Your task to perform on an android device: Go to Amazon Image 0: 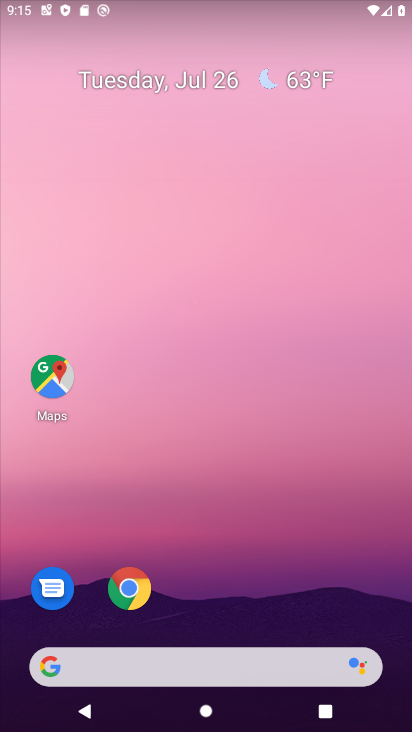
Step 0: click (123, 599)
Your task to perform on an android device: Go to Amazon Image 1: 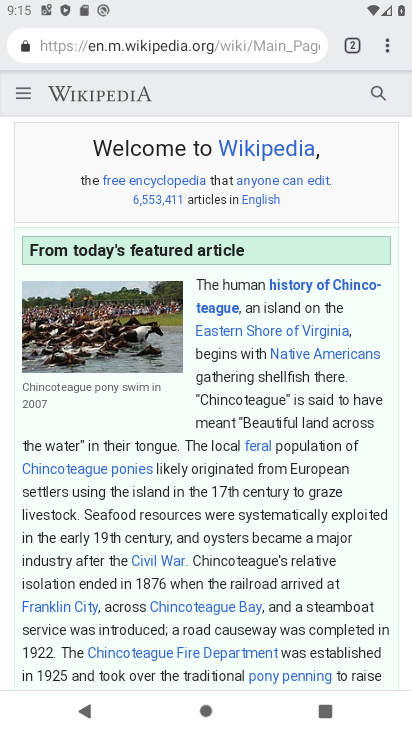
Step 1: click (349, 42)
Your task to perform on an android device: Go to Amazon Image 2: 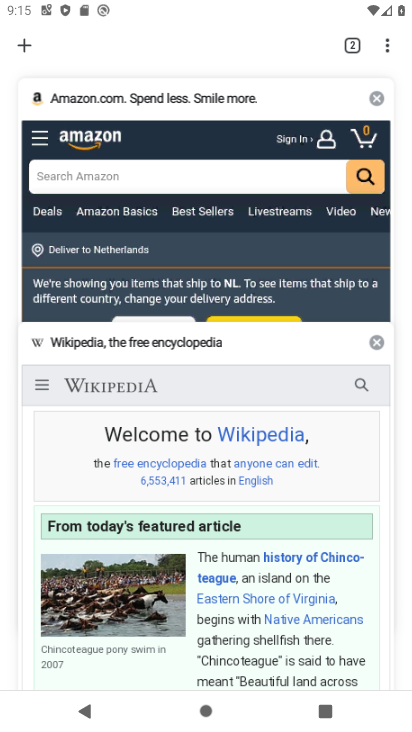
Step 2: click (198, 252)
Your task to perform on an android device: Go to Amazon Image 3: 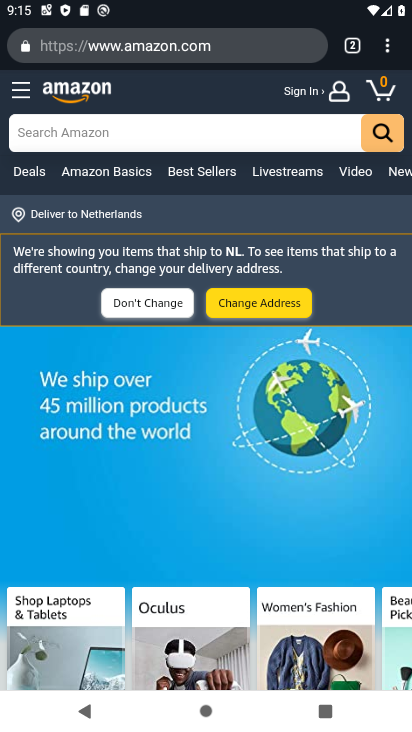
Step 3: task complete